Your task to perform on an android device: Go to internet settings Image 0: 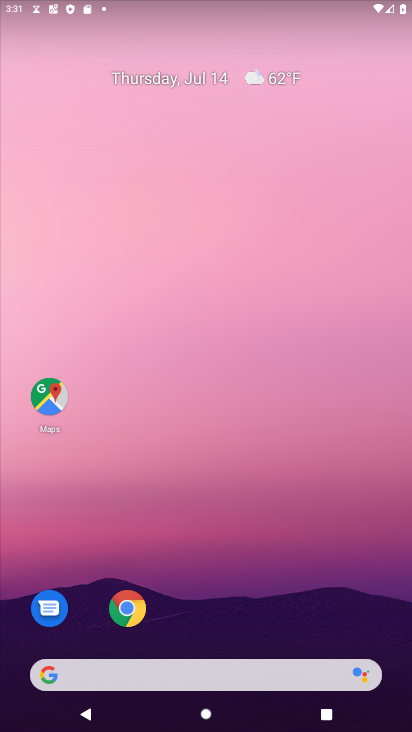
Step 0: drag from (188, 672) to (222, 184)
Your task to perform on an android device: Go to internet settings Image 1: 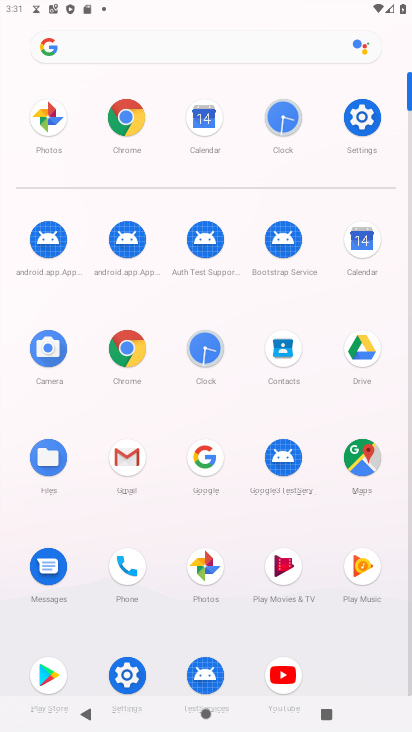
Step 1: click (371, 119)
Your task to perform on an android device: Go to internet settings Image 2: 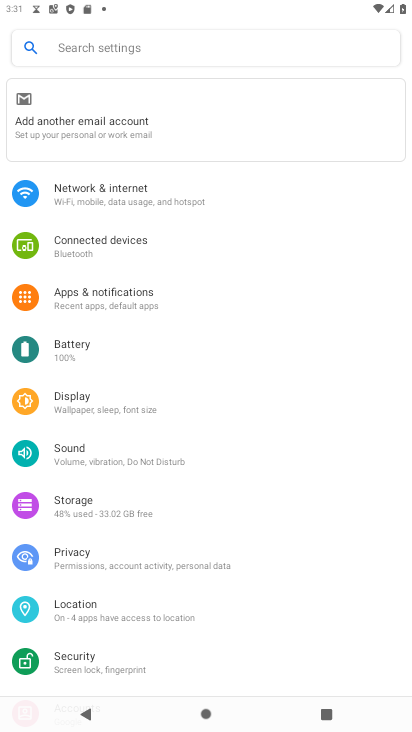
Step 2: click (103, 215)
Your task to perform on an android device: Go to internet settings Image 3: 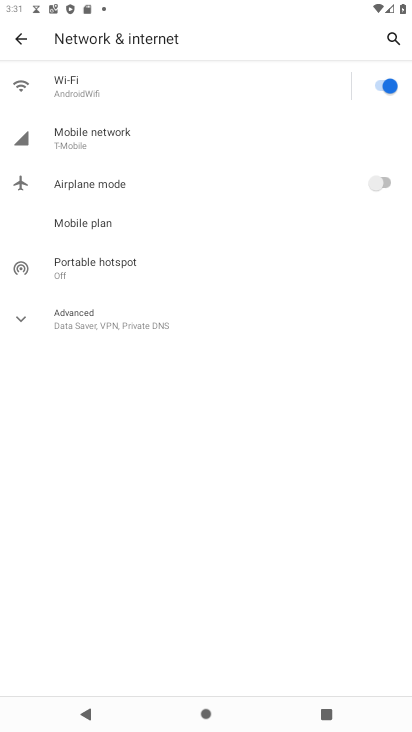
Step 3: task complete